Your task to perform on an android device: Go to sound settings Image 0: 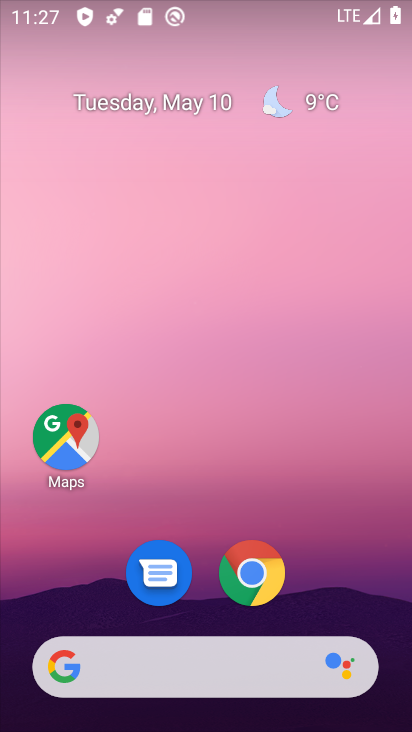
Step 0: drag from (184, 681) to (307, 20)
Your task to perform on an android device: Go to sound settings Image 1: 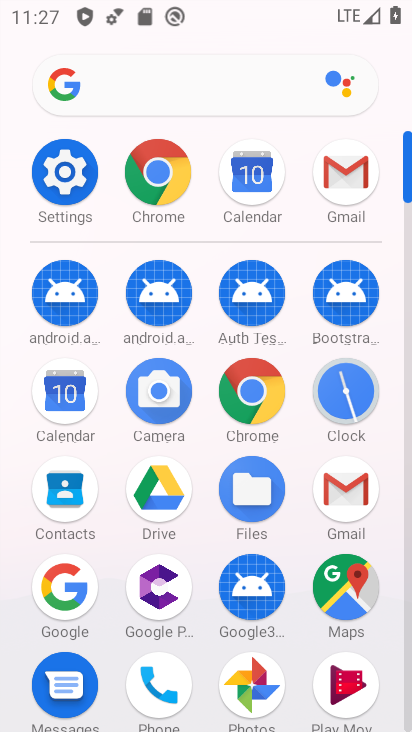
Step 1: click (69, 177)
Your task to perform on an android device: Go to sound settings Image 2: 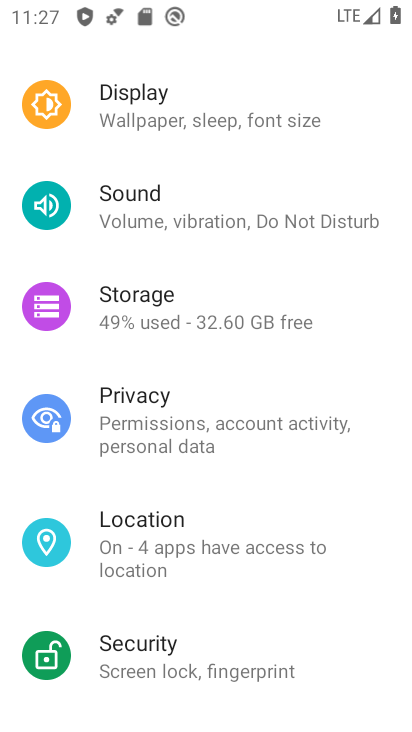
Step 2: click (152, 214)
Your task to perform on an android device: Go to sound settings Image 3: 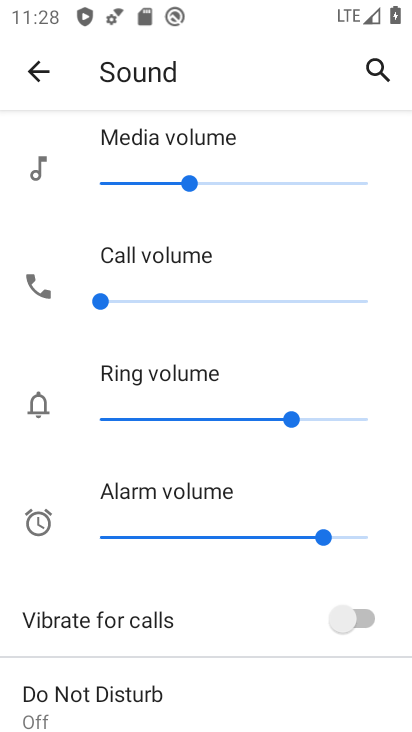
Step 3: task complete